Your task to perform on an android device: turn on notifications settings in the gmail app Image 0: 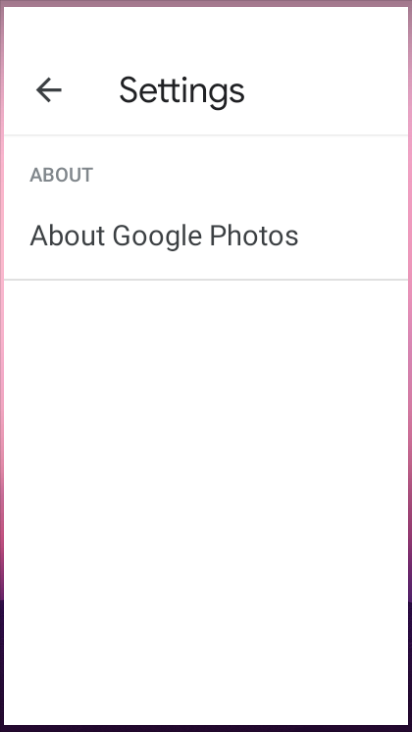
Step 0: drag from (183, 612) to (255, 149)
Your task to perform on an android device: turn on notifications settings in the gmail app Image 1: 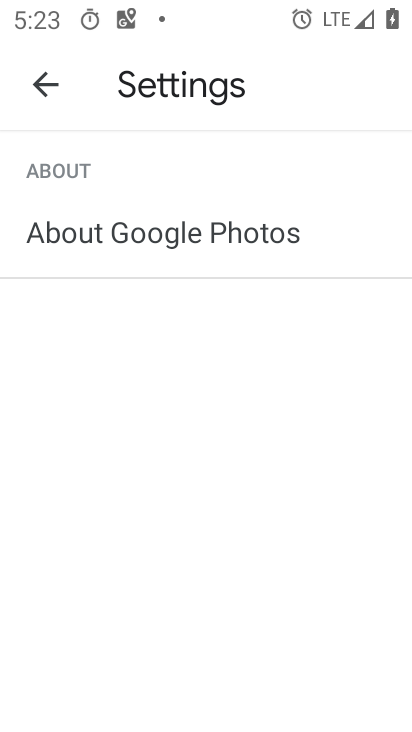
Step 1: press home button
Your task to perform on an android device: turn on notifications settings in the gmail app Image 2: 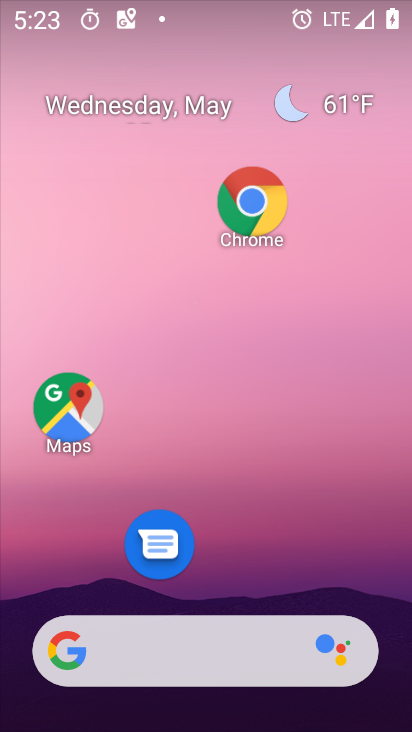
Step 2: drag from (176, 602) to (202, 249)
Your task to perform on an android device: turn on notifications settings in the gmail app Image 3: 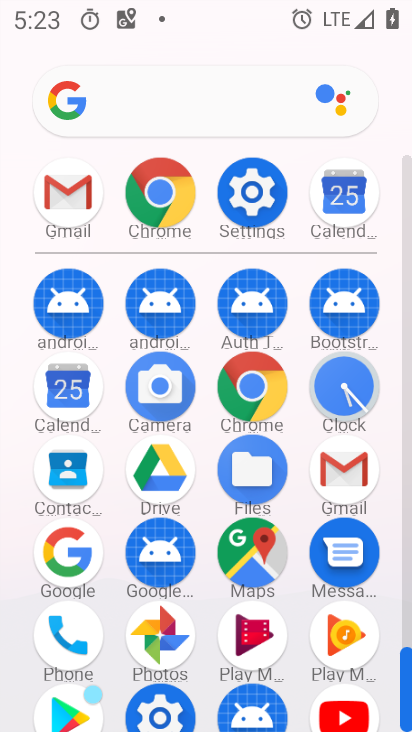
Step 3: click (336, 484)
Your task to perform on an android device: turn on notifications settings in the gmail app Image 4: 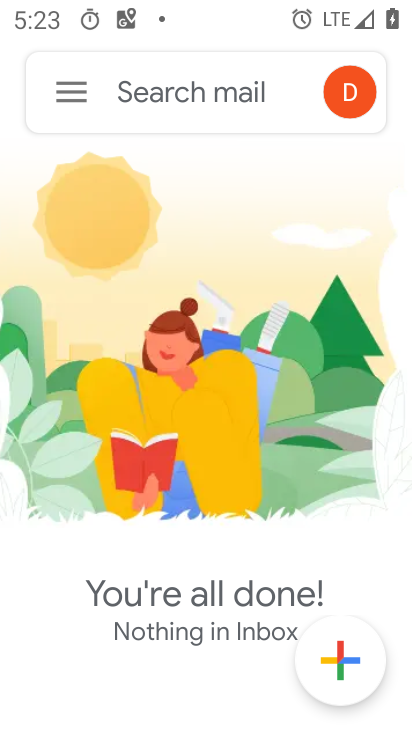
Step 4: click (58, 88)
Your task to perform on an android device: turn on notifications settings in the gmail app Image 5: 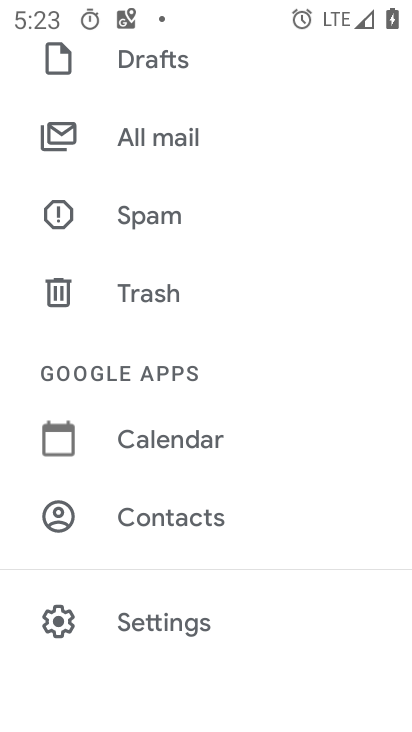
Step 5: click (161, 630)
Your task to perform on an android device: turn on notifications settings in the gmail app Image 6: 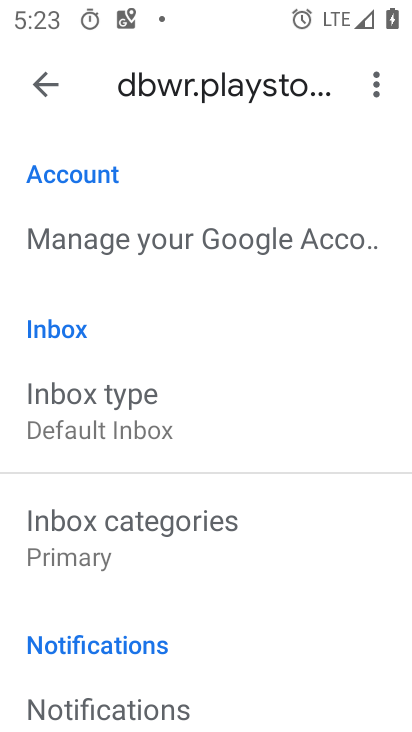
Step 6: click (56, 86)
Your task to perform on an android device: turn on notifications settings in the gmail app Image 7: 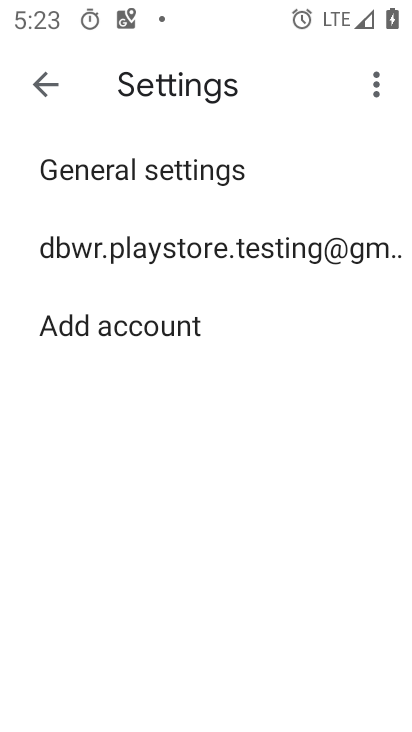
Step 7: click (133, 169)
Your task to perform on an android device: turn on notifications settings in the gmail app Image 8: 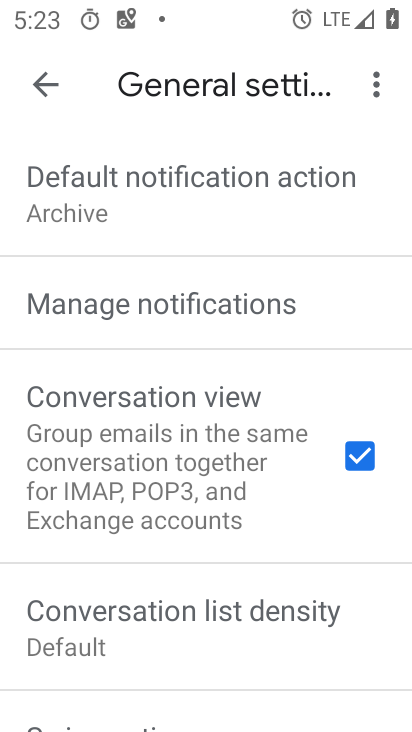
Step 8: drag from (159, 685) to (174, 302)
Your task to perform on an android device: turn on notifications settings in the gmail app Image 9: 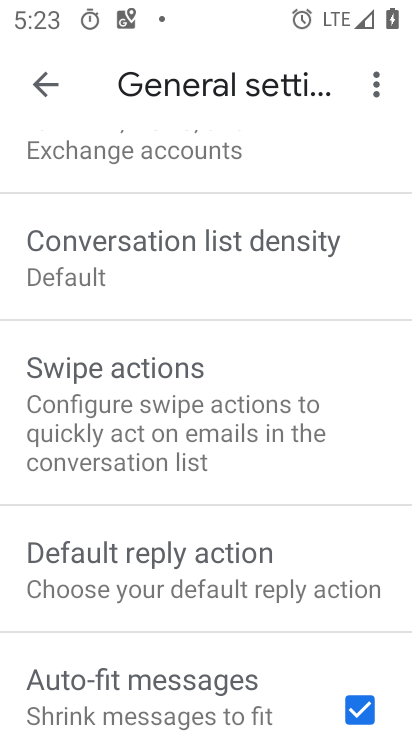
Step 9: drag from (258, 163) to (267, 591)
Your task to perform on an android device: turn on notifications settings in the gmail app Image 10: 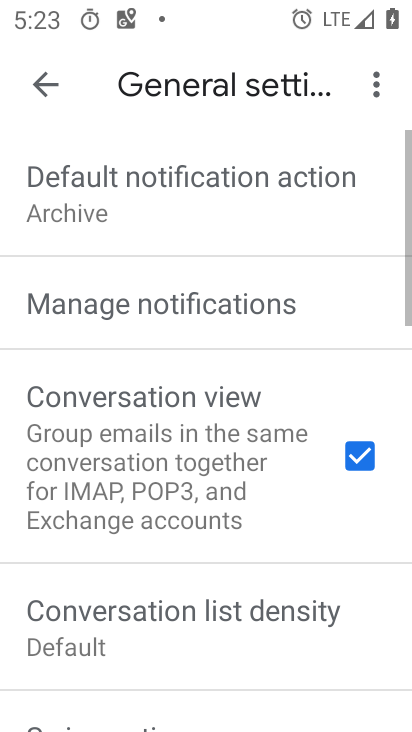
Step 10: click (164, 311)
Your task to perform on an android device: turn on notifications settings in the gmail app Image 11: 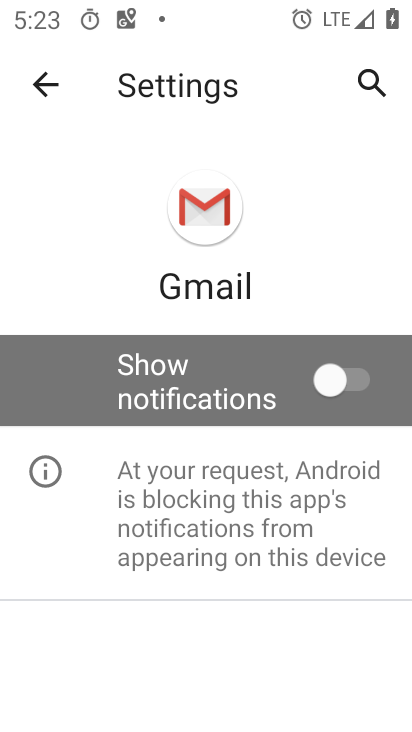
Step 11: click (357, 386)
Your task to perform on an android device: turn on notifications settings in the gmail app Image 12: 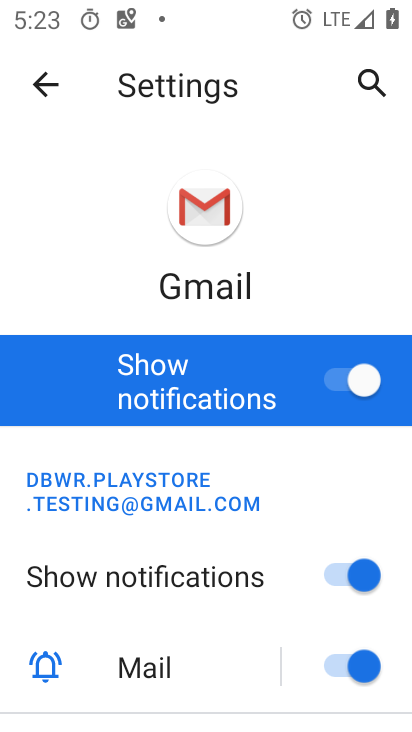
Step 12: task complete